Your task to perform on an android device: open app "Adobe Express: Graphic Design" (install if not already installed), go to login, and select forgot password Image 0: 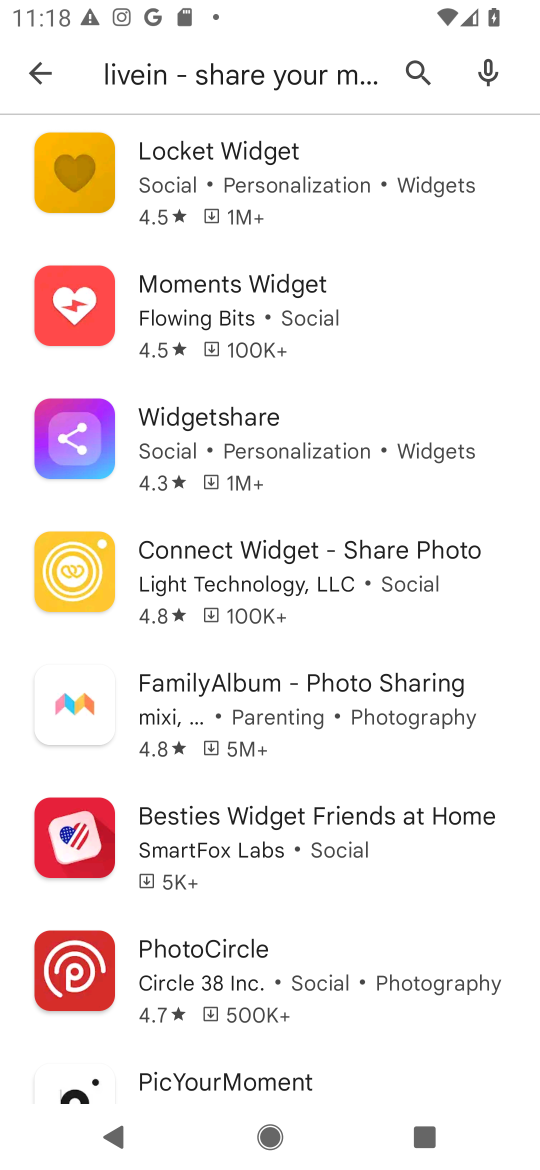
Step 0: click (420, 84)
Your task to perform on an android device: open app "Adobe Express: Graphic Design" (install if not already installed), go to login, and select forgot password Image 1: 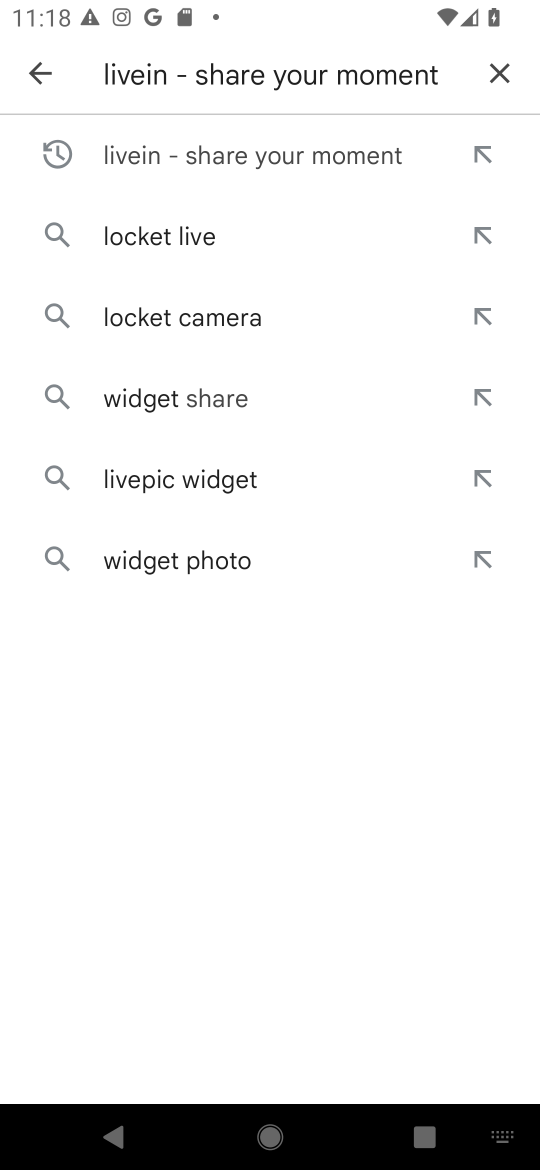
Step 1: click (496, 54)
Your task to perform on an android device: open app "Adobe Express: Graphic Design" (install if not already installed), go to login, and select forgot password Image 2: 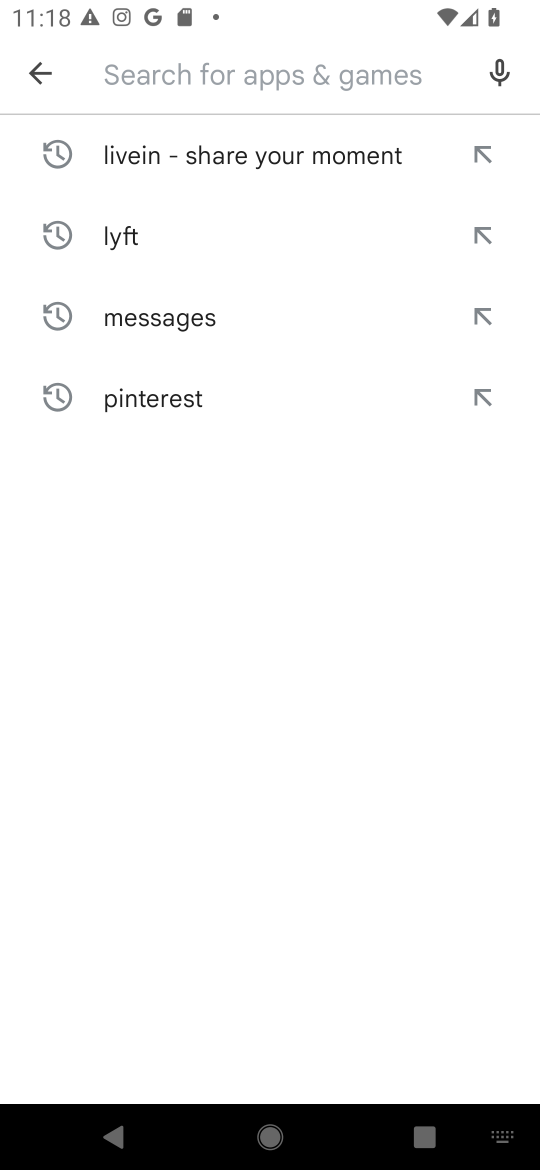
Step 2: type "Adobe Express: Graphic Design"
Your task to perform on an android device: open app "Adobe Express: Graphic Design" (install if not already installed), go to login, and select forgot password Image 3: 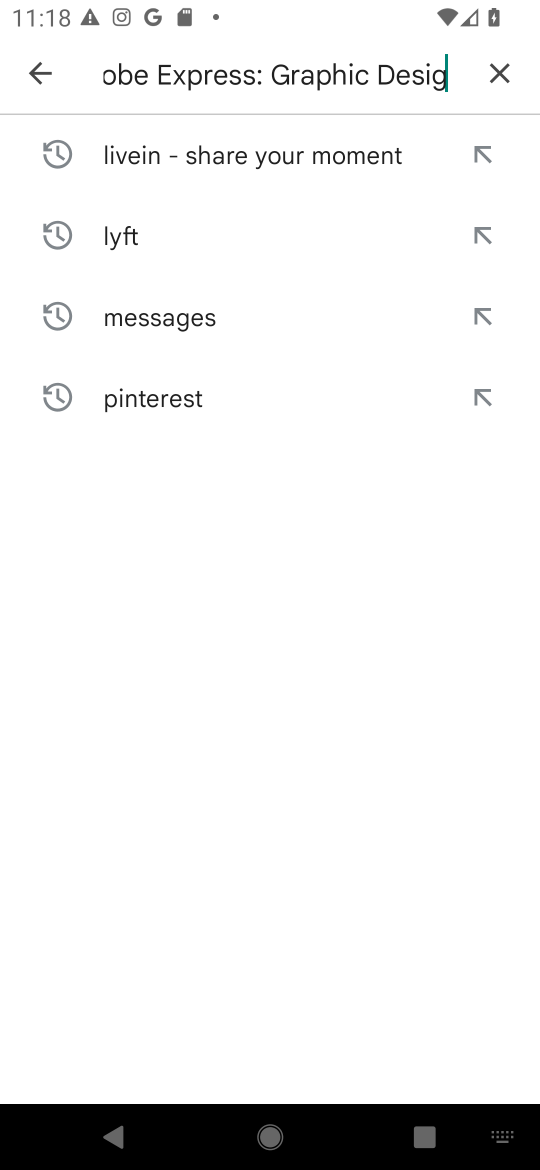
Step 3: type ""
Your task to perform on an android device: open app "Adobe Express: Graphic Design" (install if not already installed), go to login, and select forgot password Image 4: 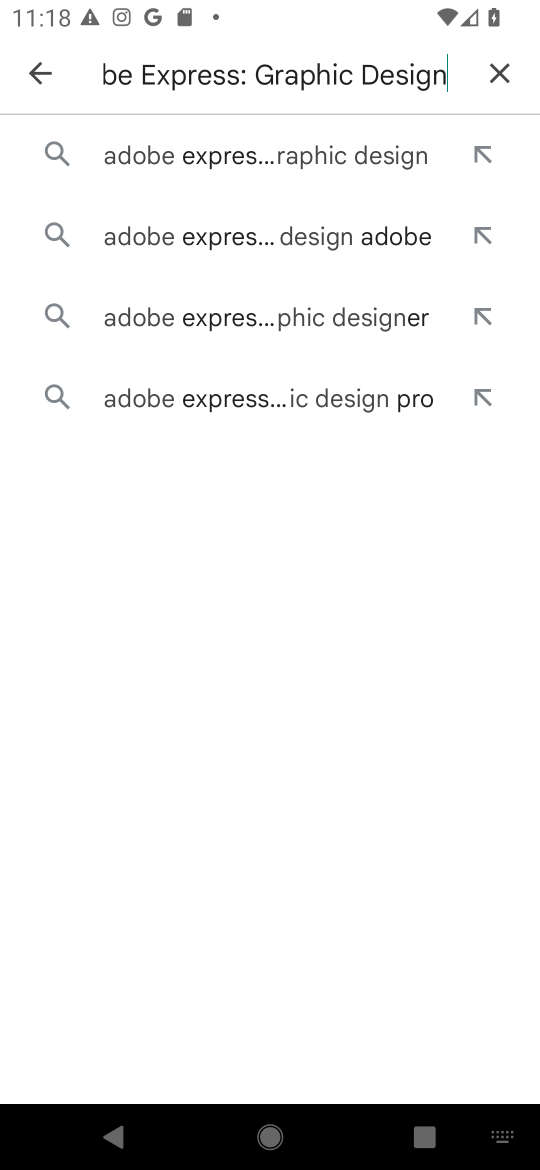
Step 4: click (142, 154)
Your task to perform on an android device: open app "Adobe Express: Graphic Design" (install if not already installed), go to login, and select forgot password Image 5: 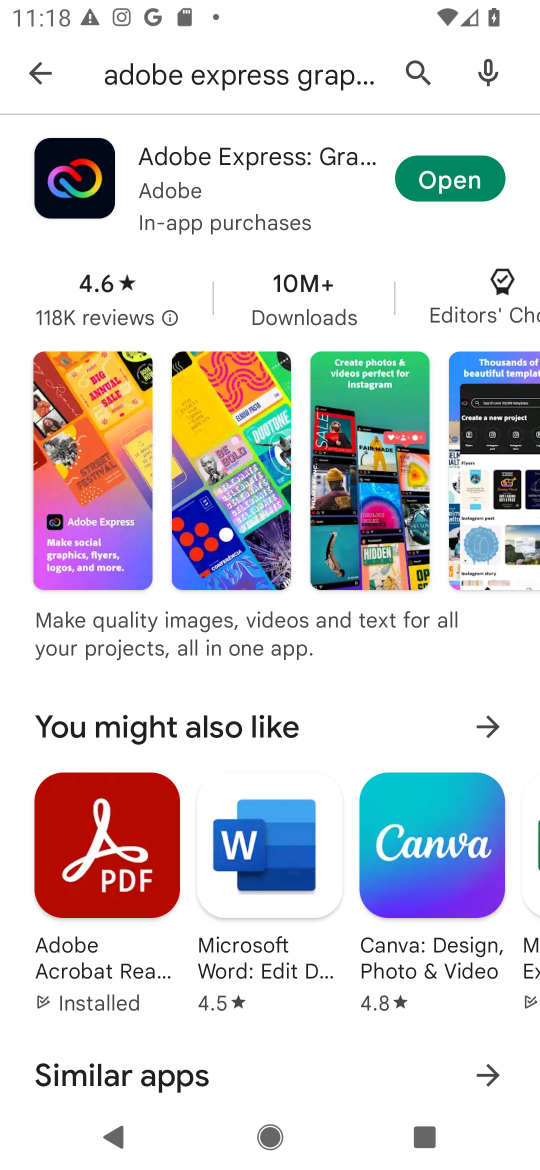
Step 5: click (430, 178)
Your task to perform on an android device: open app "Adobe Express: Graphic Design" (install if not already installed), go to login, and select forgot password Image 6: 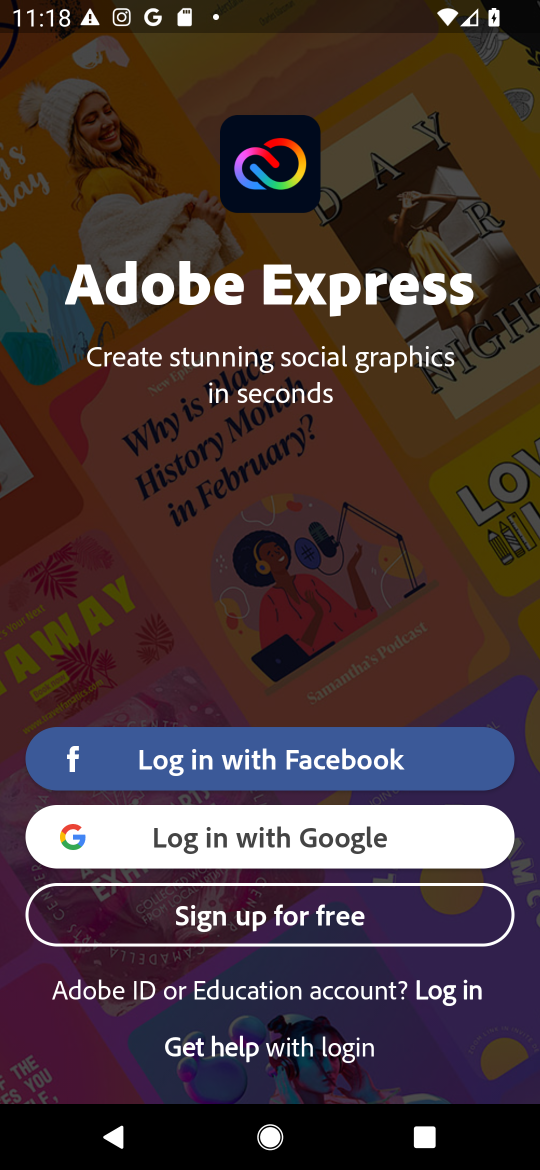
Step 6: task complete